Your task to perform on an android device: Is it going to rain this weekend? Image 0: 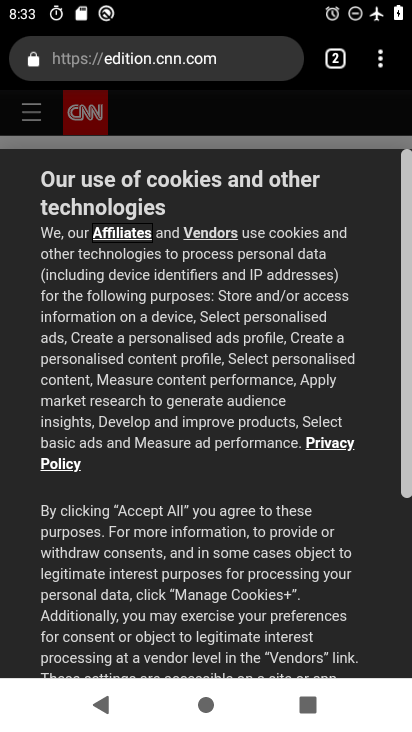
Step 0: press home button
Your task to perform on an android device: Is it going to rain this weekend? Image 1: 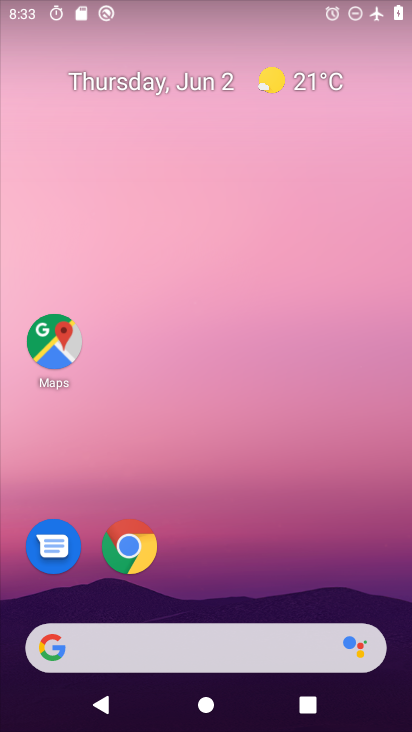
Step 1: drag from (355, 576) to (386, 7)
Your task to perform on an android device: Is it going to rain this weekend? Image 2: 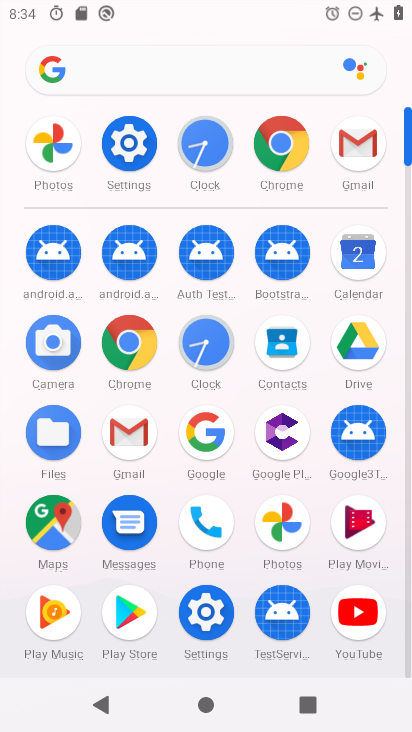
Step 2: click (145, 368)
Your task to perform on an android device: Is it going to rain this weekend? Image 3: 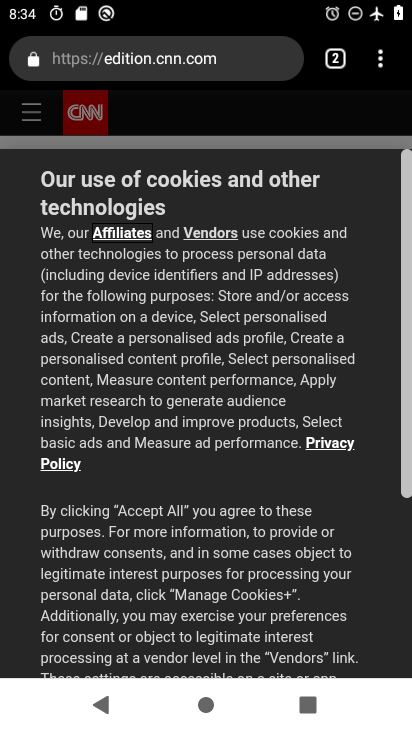
Step 3: click (200, 55)
Your task to perform on an android device: Is it going to rain this weekend? Image 4: 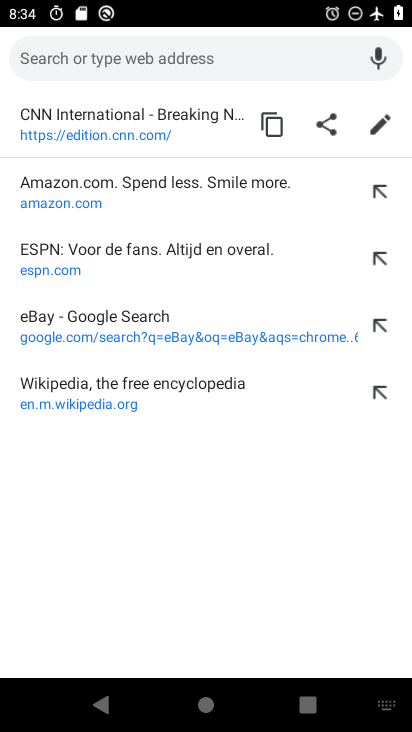
Step 4: type "is it going to rain this weekend "
Your task to perform on an android device: Is it going to rain this weekend? Image 5: 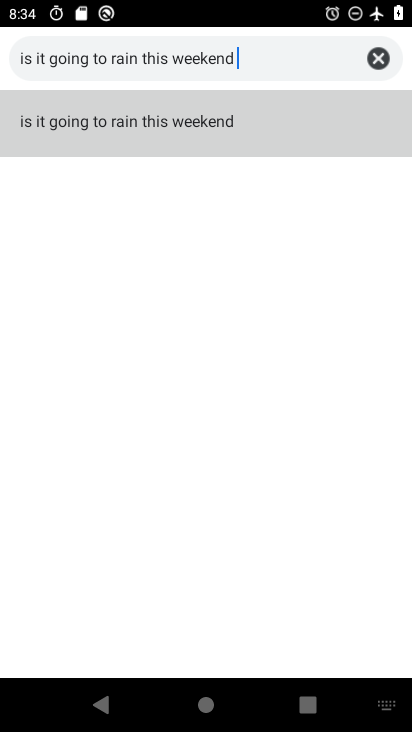
Step 5: click (217, 91)
Your task to perform on an android device: Is it going to rain this weekend? Image 6: 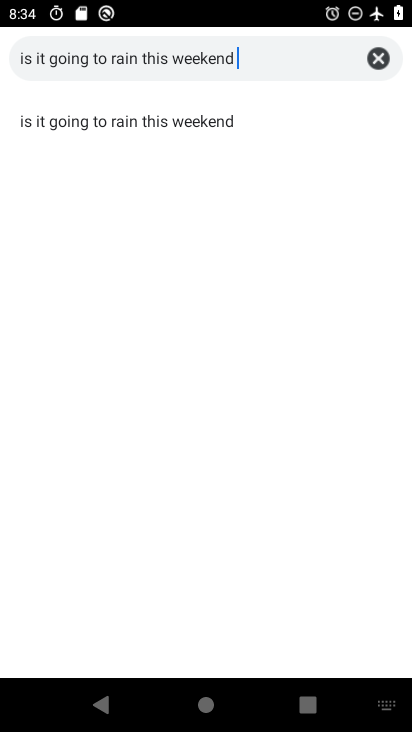
Step 6: click (196, 123)
Your task to perform on an android device: Is it going to rain this weekend? Image 7: 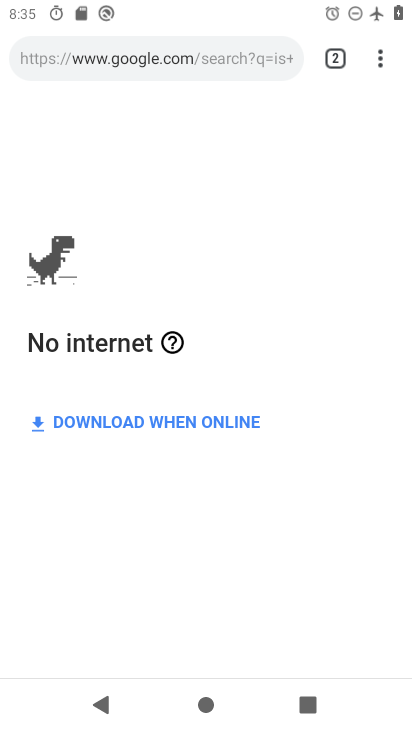
Step 7: task complete